Your task to perform on an android device: turn off data saver in the chrome app Image 0: 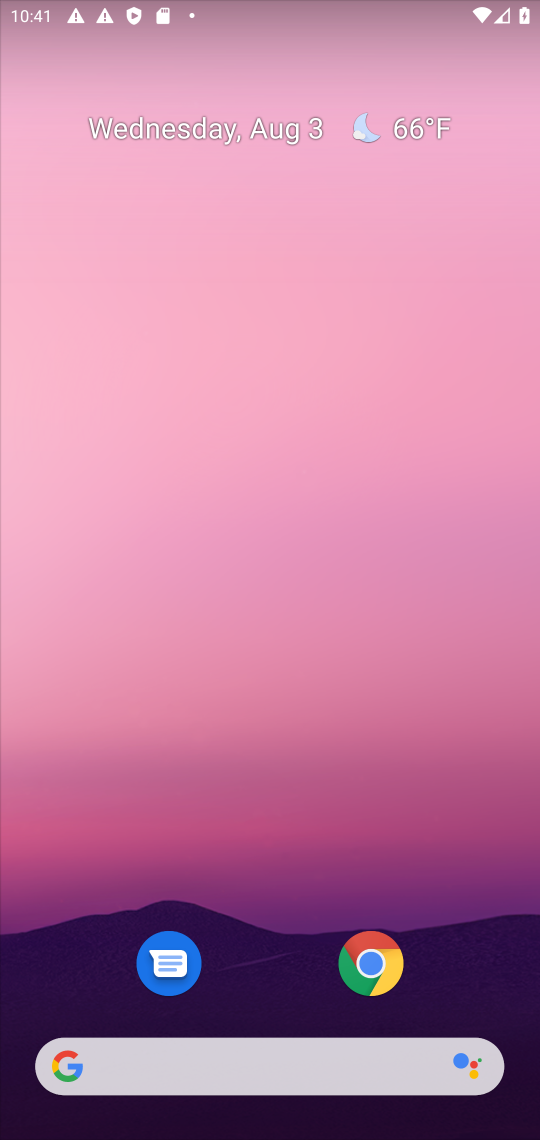
Step 0: click (399, 947)
Your task to perform on an android device: turn off data saver in the chrome app Image 1: 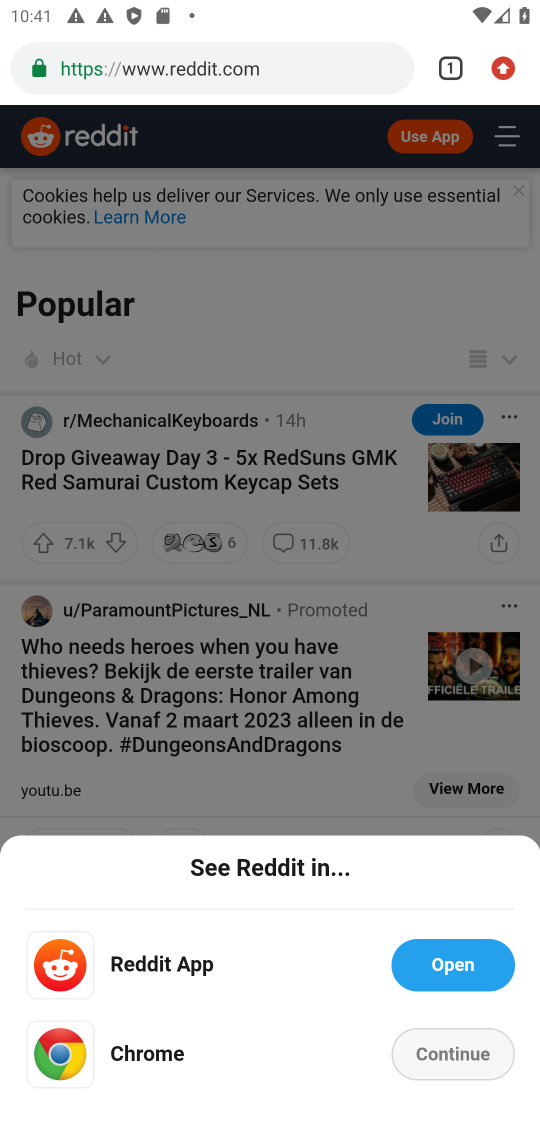
Step 1: click (514, 80)
Your task to perform on an android device: turn off data saver in the chrome app Image 2: 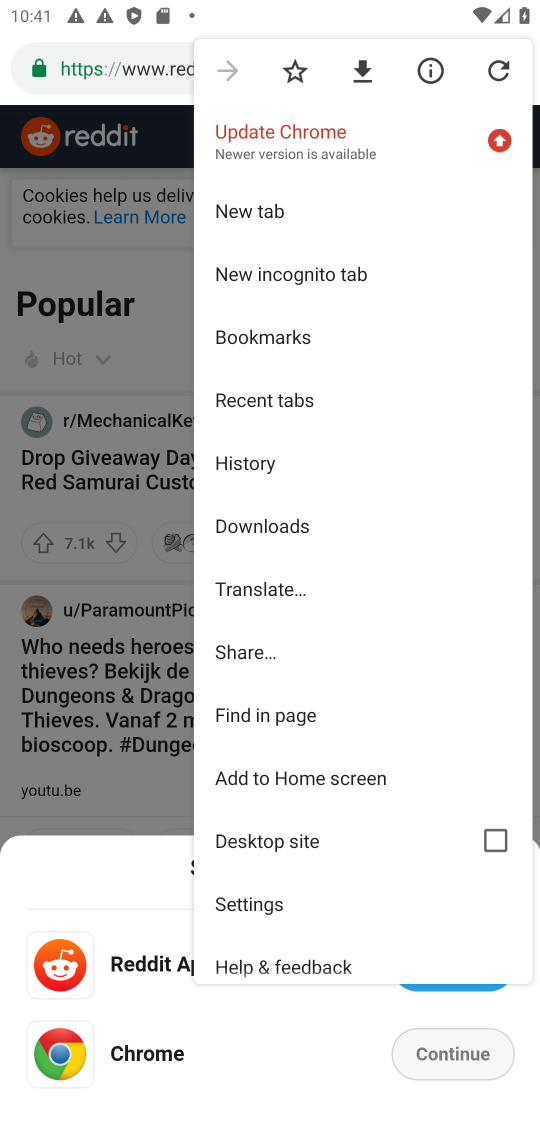
Step 2: click (327, 905)
Your task to perform on an android device: turn off data saver in the chrome app Image 3: 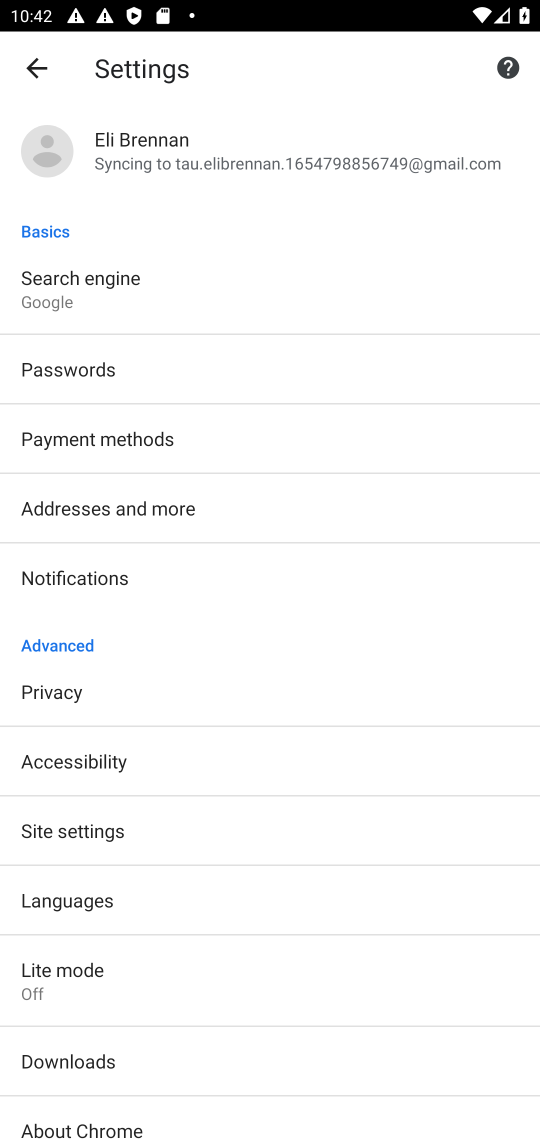
Step 3: click (119, 967)
Your task to perform on an android device: turn off data saver in the chrome app Image 4: 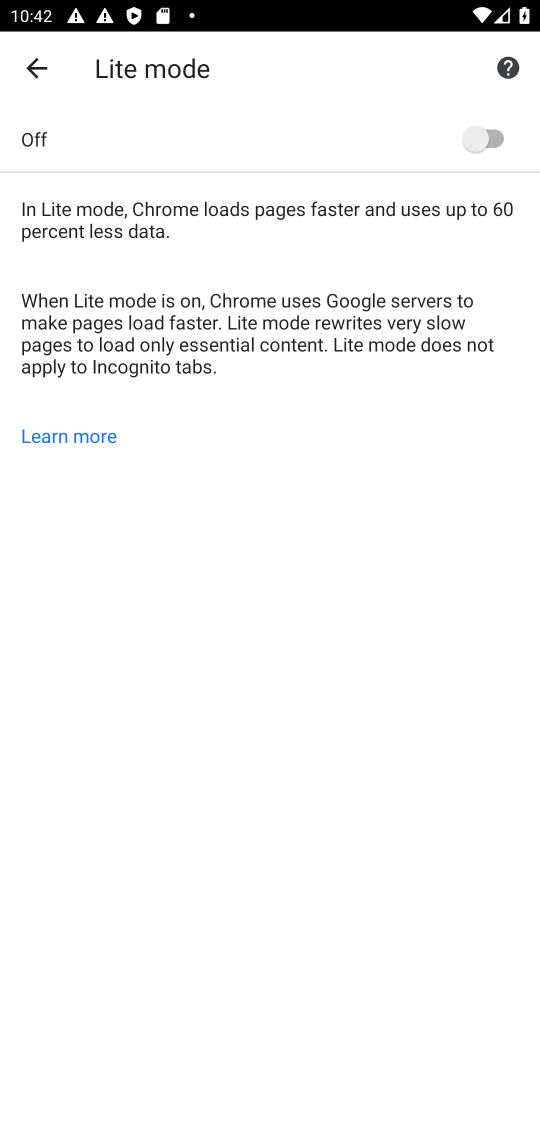
Step 4: task complete